Your task to perform on an android device: turn on bluetooth scan Image 0: 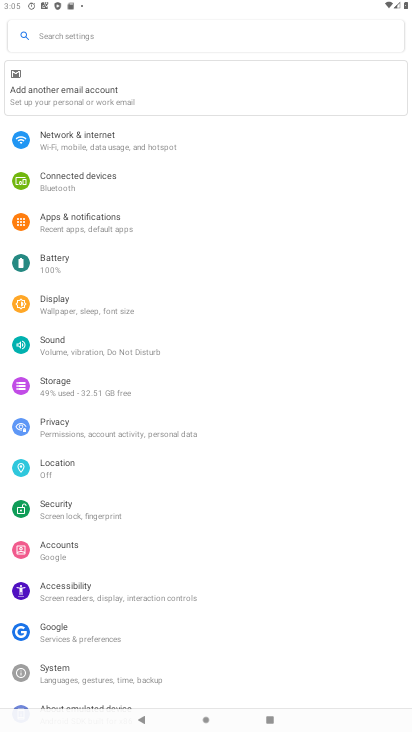
Step 0: click (55, 465)
Your task to perform on an android device: turn on bluetooth scan Image 1: 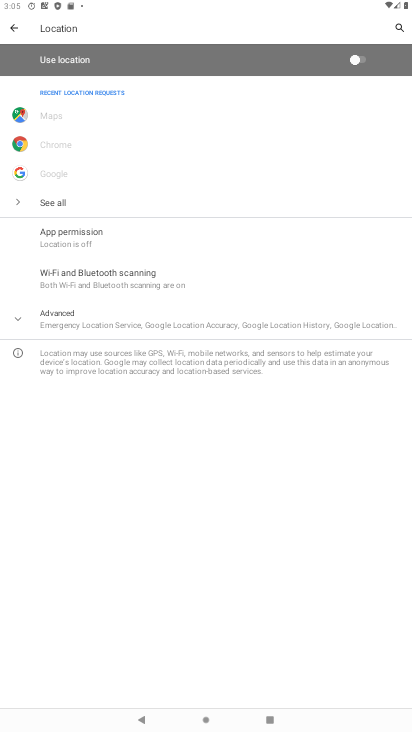
Step 1: click (129, 278)
Your task to perform on an android device: turn on bluetooth scan Image 2: 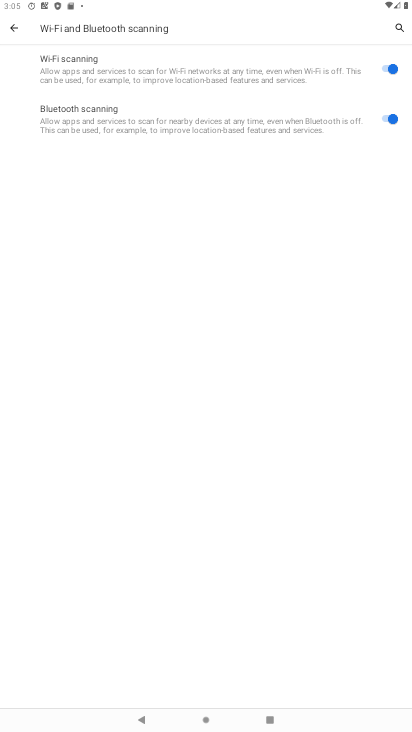
Step 2: task complete